Your task to perform on an android device: Check the weather Image 0: 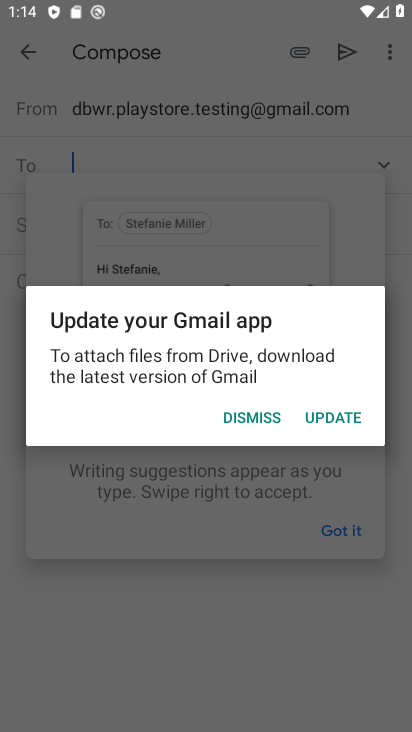
Step 0: press home button
Your task to perform on an android device: Check the weather Image 1: 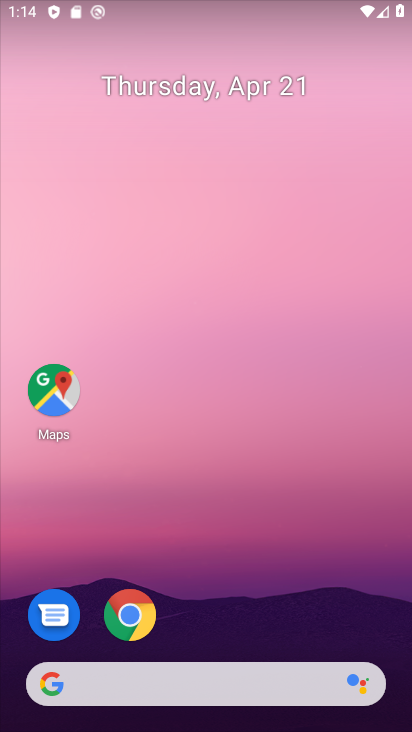
Step 1: drag from (245, 649) to (296, 254)
Your task to perform on an android device: Check the weather Image 2: 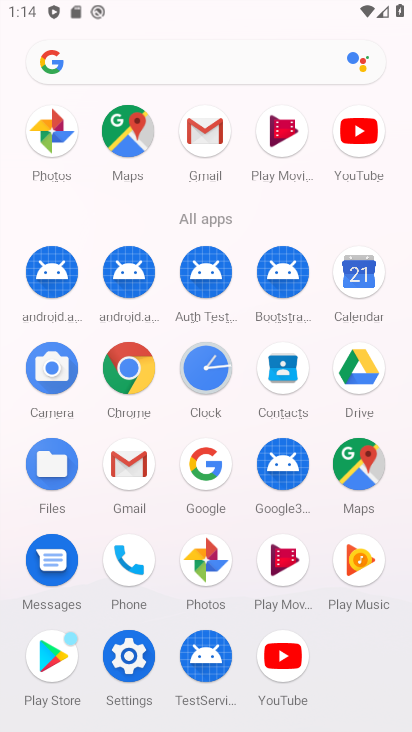
Step 2: click (207, 464)
Your task to perform on an android device: Check the weather Image 3: 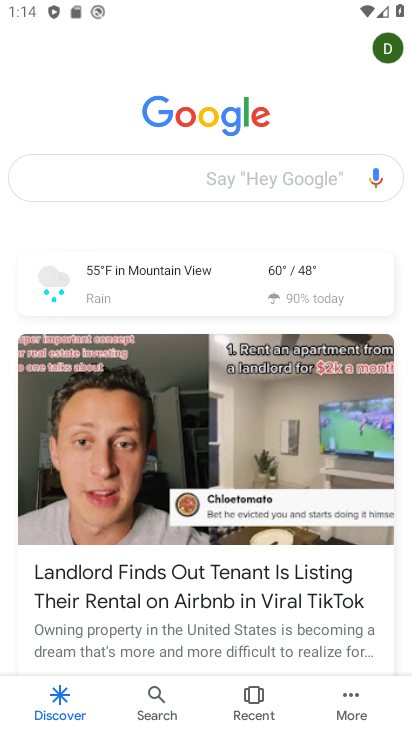
Step 3: click (167, 275)
Your task to perform on an android device: Check the weather Image 4: 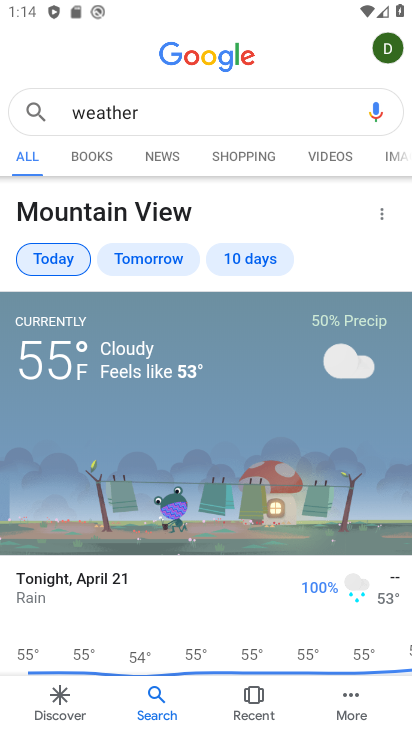
Step 4: task complete